Your task to perform on an android device: delete the emails in spam in the gmail app Image 0: 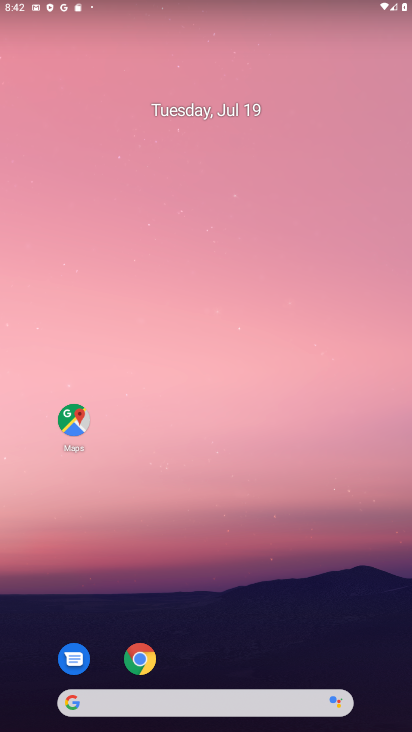
Step 0: click (74, 412)
Your task to perform on an android device: delete the emails in spam in the gmail app Image 1: 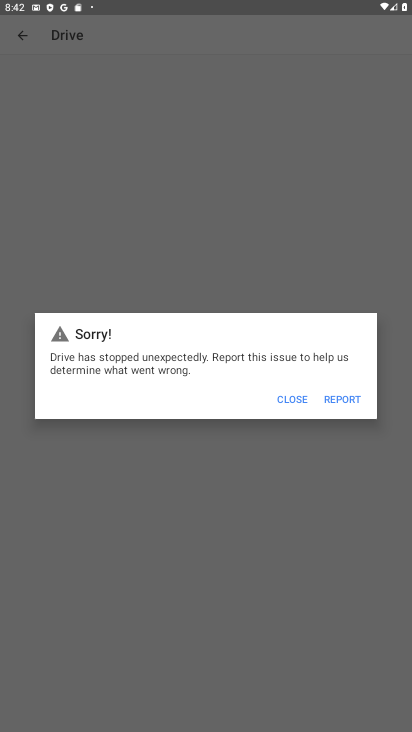
Step 1: press home button
Your task to perform on an android device: delete the emails in spam in the gmail app Image 2: 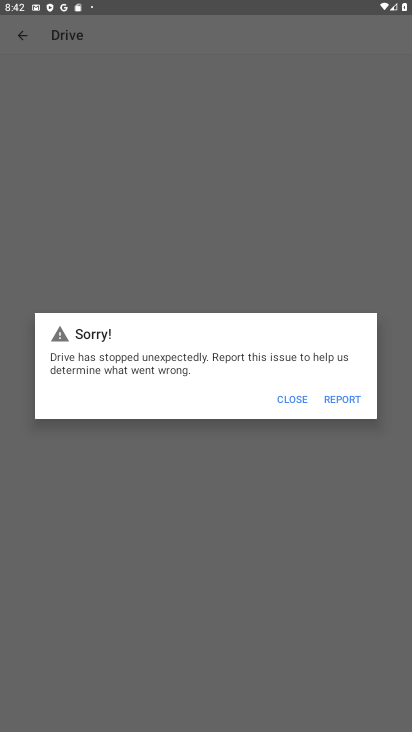
Step 2: press home button
Your task to perform on an android device: delete the emails in spam in the gmail app Image 3: 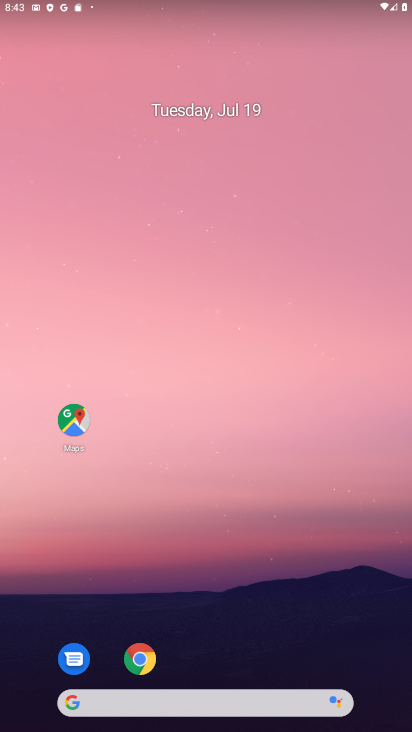
Step 3: click (81, 429)
Your task to perform on an android device: delete the emails in spam in the gmail app Image 4: 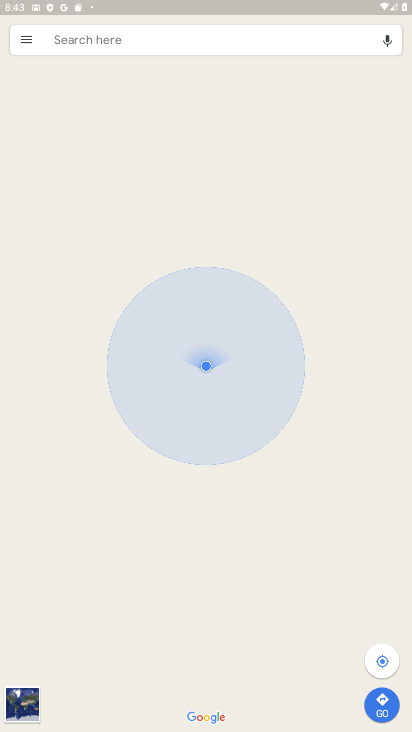
Step 4: press home button
Your task to perform on an android device: delete the emails in spam in the gmail app Image 5: 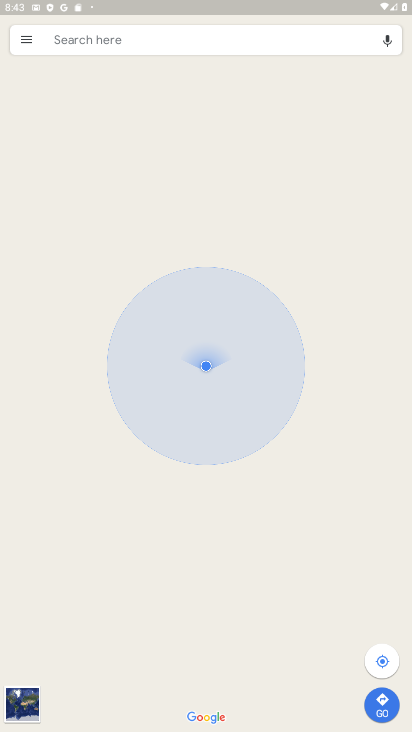
Step 5: press home button
Your task to perform on an android device: delete the emails in spam in the gmail app Image 6: 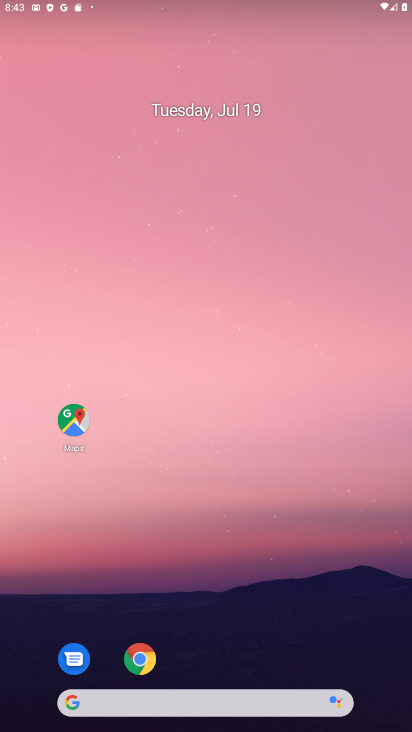
Step 6: drag from (113, 523) to (199, 48)
Your task to perform on an android device: delete the emails in spam in the gmail app Image 7: 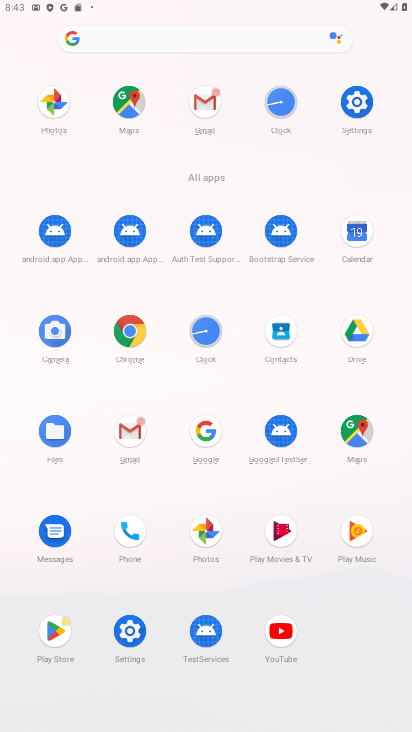
Step 7: click (203, 115)
Your task to perform on an android device: delete the emails in spam in the gmail app Image 8: 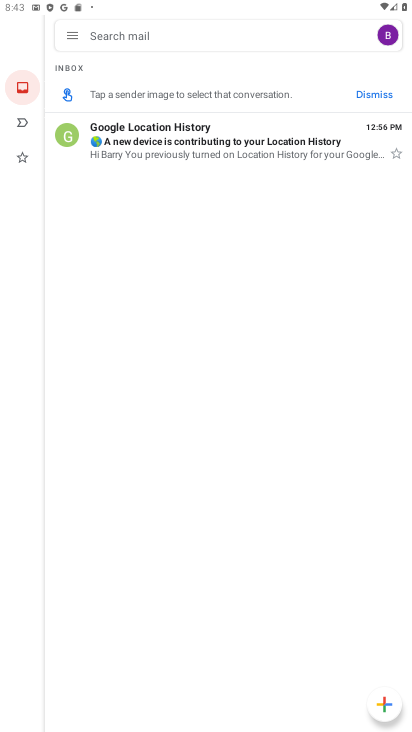
Step 8: click (193, 144)
Your task to perform on an android device: delete the emails in spam in the gmail app Image 9: 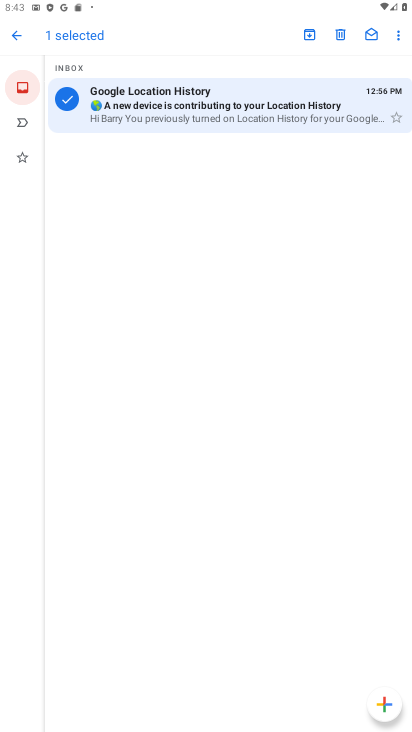
Step 9: click (337, 39)
Your task to perform on an android device: delete the emails in spam in the gmail app Image 10: 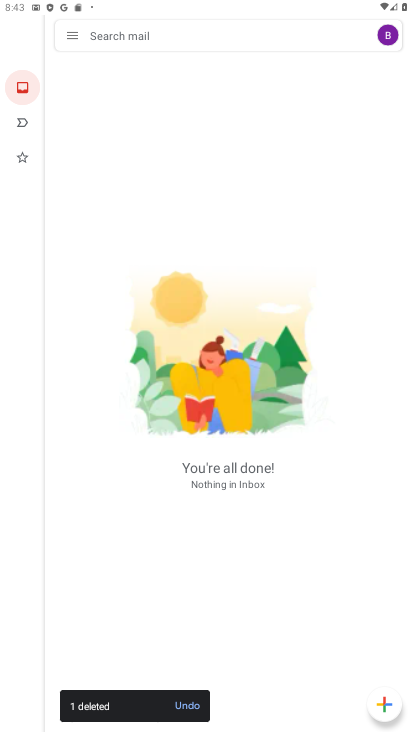
Step 10: task complete